Your task to perform on an android device: Show the shopping cart on costco.com. Image 0: 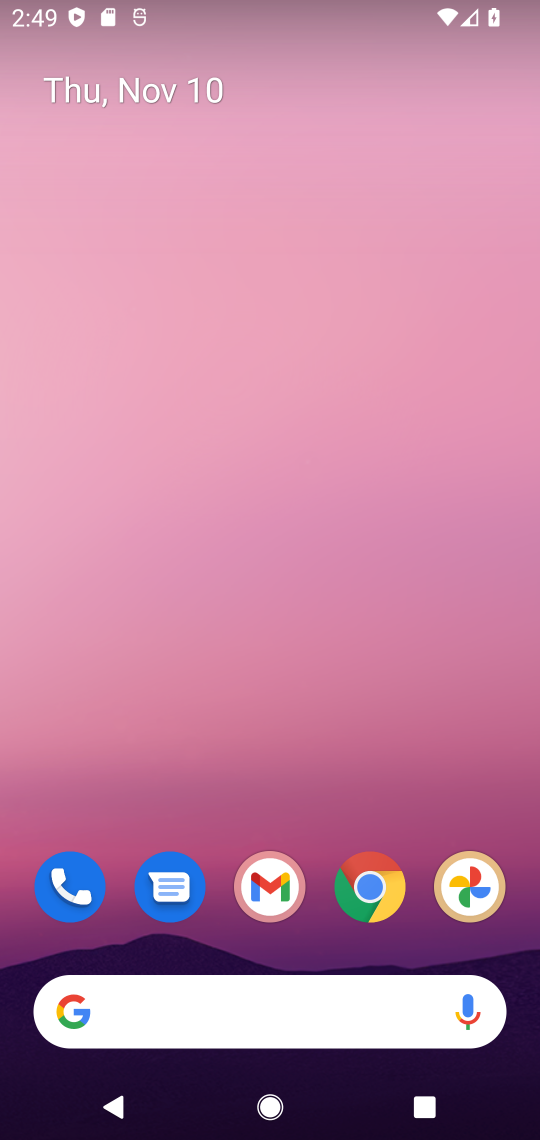
Step 0: drag from (319, 957) to (223, 0)
Your task to perform on an android device: Show the shopping cart on costco.com. Image 1: 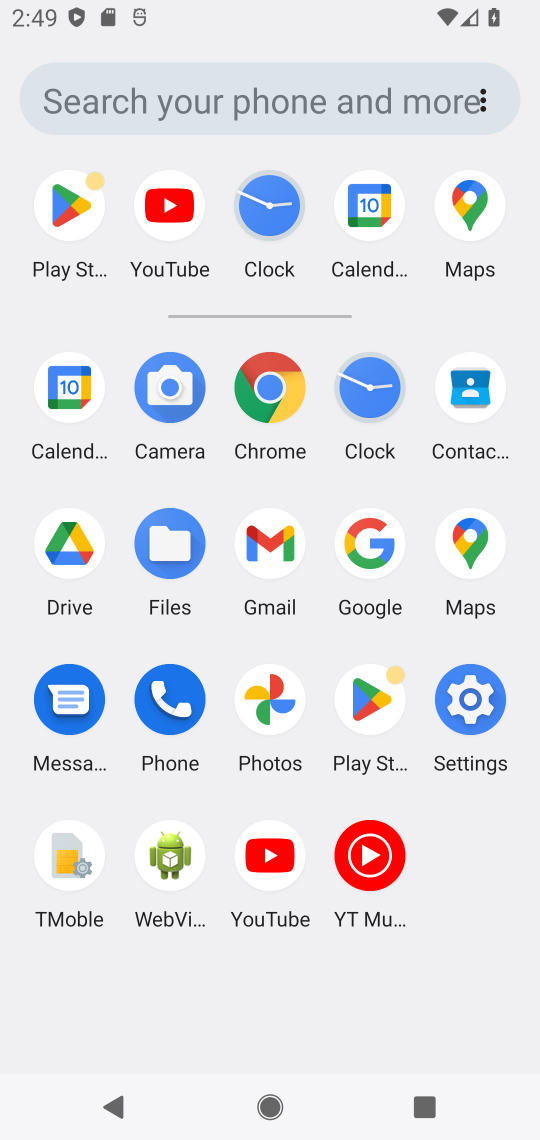
Step 1: click (270, 391)
Your task to perform on an android device: Show the shopping cart on costco.com. Image 2: 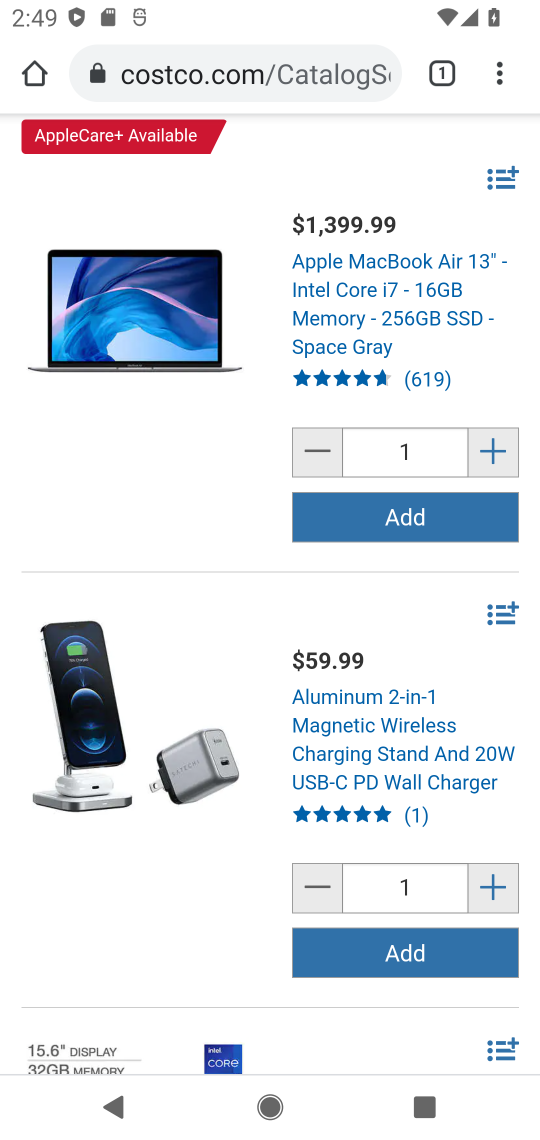
Step 2: click (296, 69)
Your task to perform on an android device: Show the shopping cart on costco.com. Image 3: 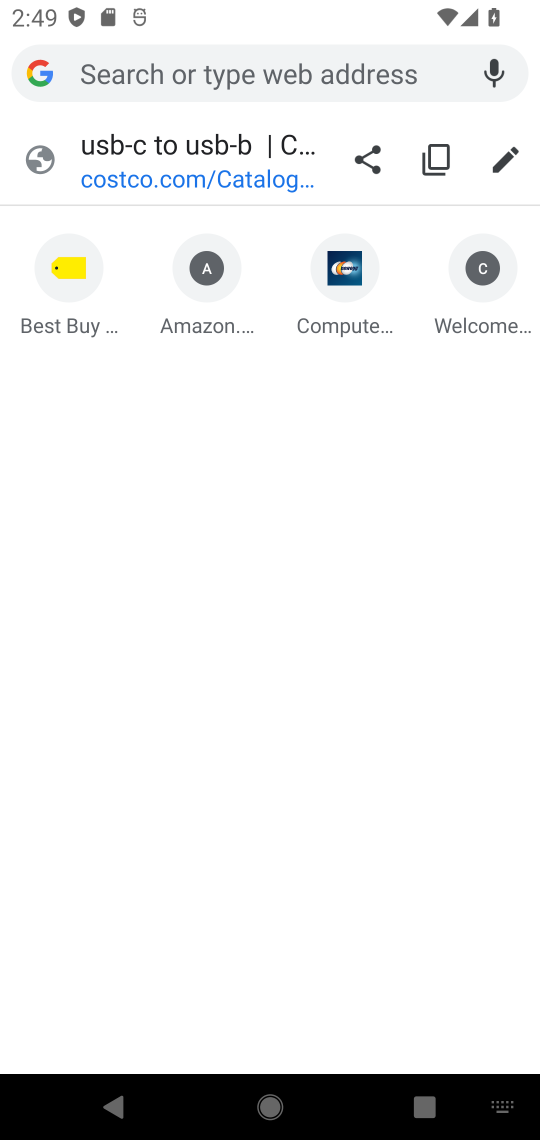
Step 3: type "costco.com"
Your task to perform on an android device: Show the shopping cart on costco.com. Image 4: 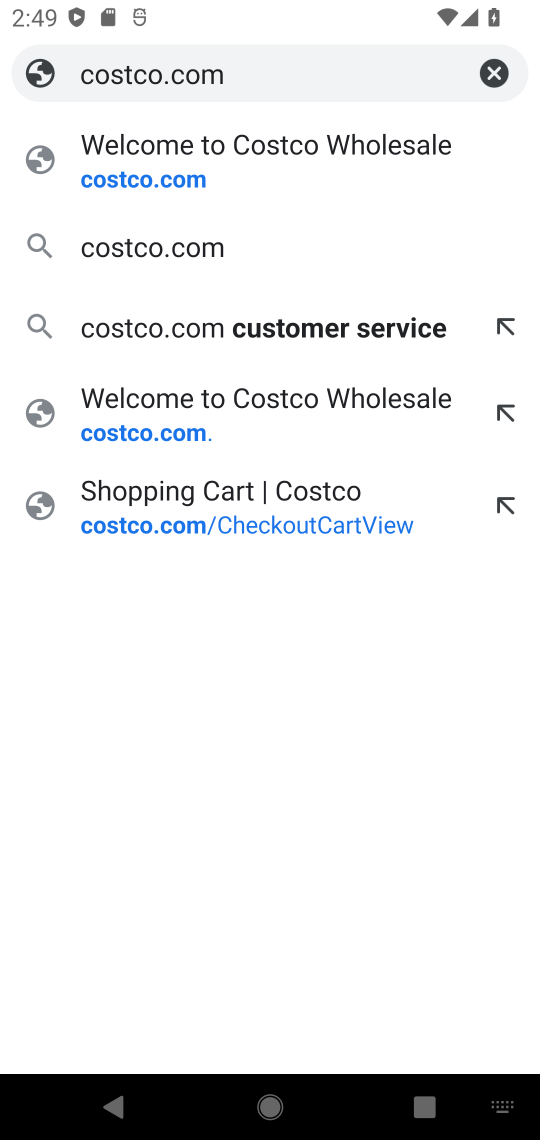
Step 4: press enter
Your task to perform on an android device: Show the shopping cart on costco.com. Image 5: 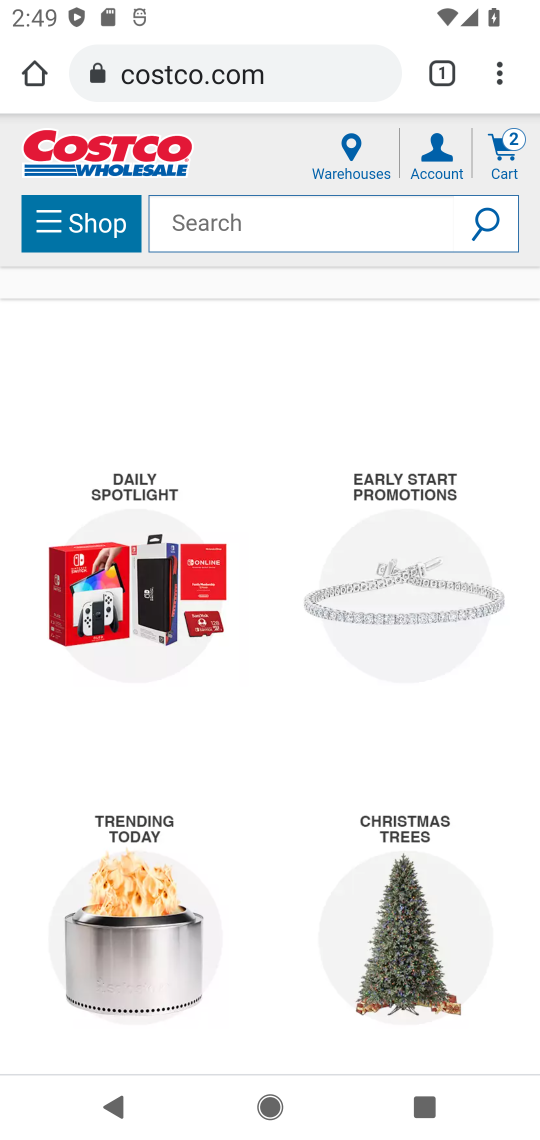
Step 5: click (506, 134)
Your task to perform on an android device: Show the shopping cart on costco.com. Image 6: 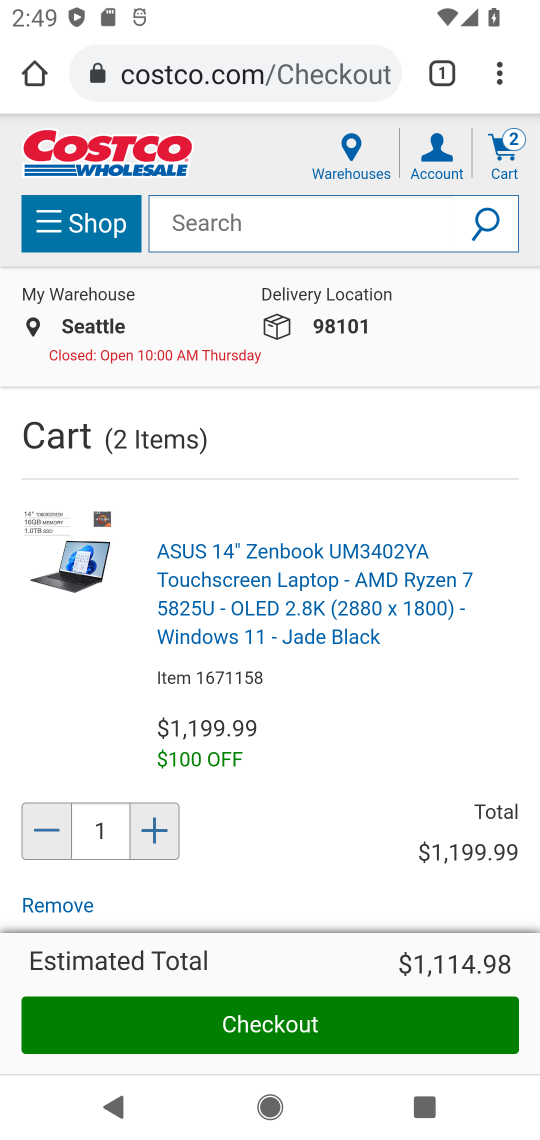
Step 6: task complete